Your task to perform on an android device: see tabs open on other devices in the chrome app Image 0: 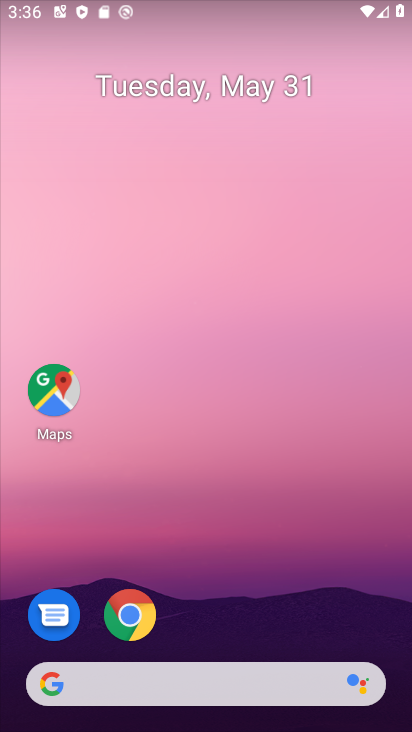
Step 0: drag from (267, 673) to (143, 8)
Your task to perform on an android device: see tabs open on other devices in the chrome app Image 1: 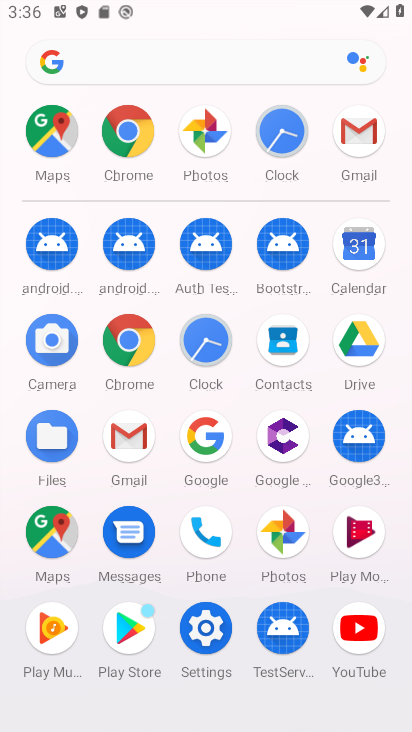
Step 1: click (124, 129)
Your task to perform on an android device: see tabs open on other devices in the chrome app Image 2: 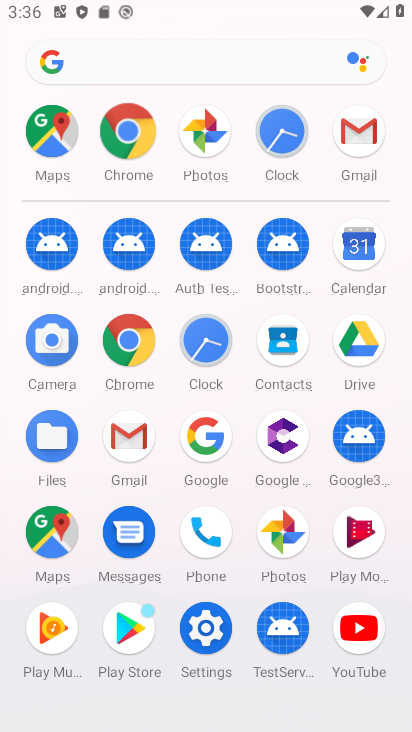
Step 2: click (124, 129)
Your task to perform on an android device: see tabs open on other devices in the chrome app Image 3: 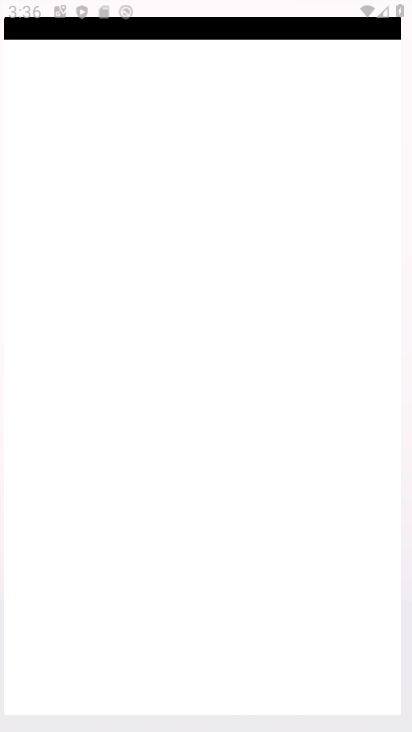
Step 3: click (124, 129)
Your task to perform on an android device: see tabs open on other devices in the chrome app Image 4: 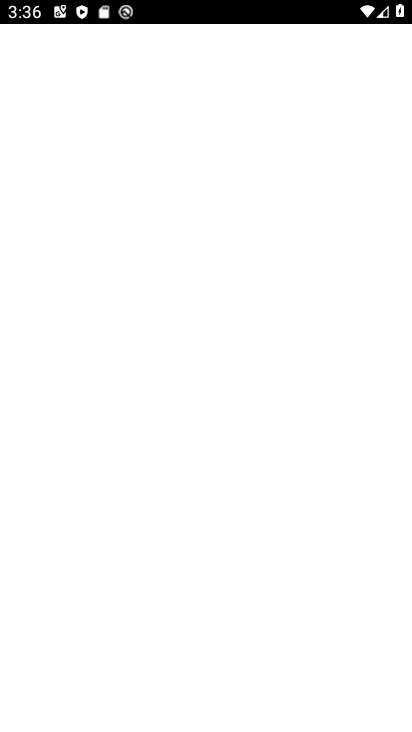
Step 4: click (124, 129)
Your task to perform on an android device: see tabs open on other devices in the chrome app Image 5: 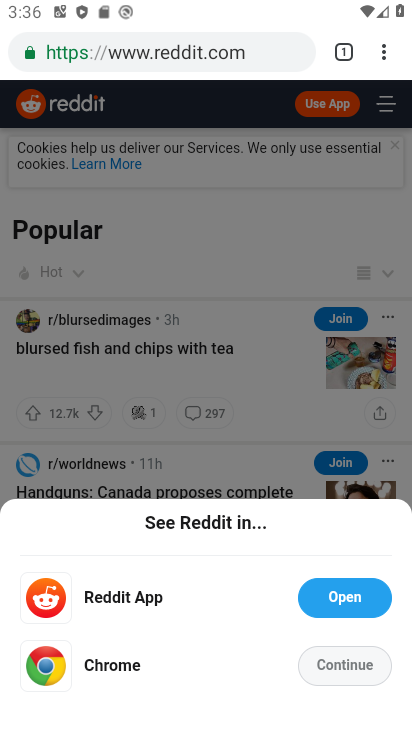
Step 5: drag from (385, 55) to (197, 243)
Your task to perform on an android device: see tabs open on other devices in the chrome app Image 6: 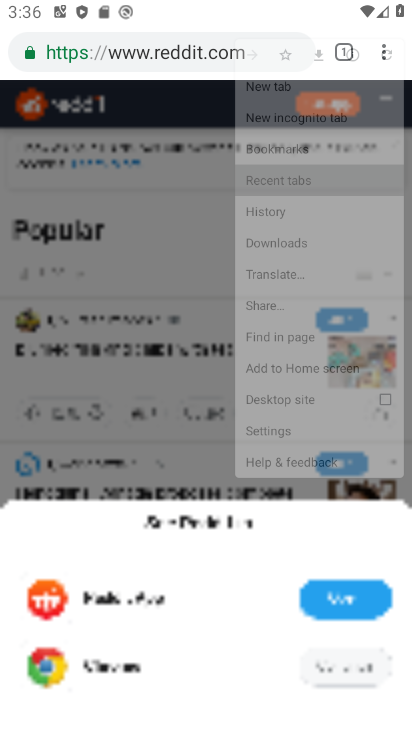
Step 6: click (196, 242)
Your task to perform on an android device: see tabs open on other devices in the chrome app Image 7: 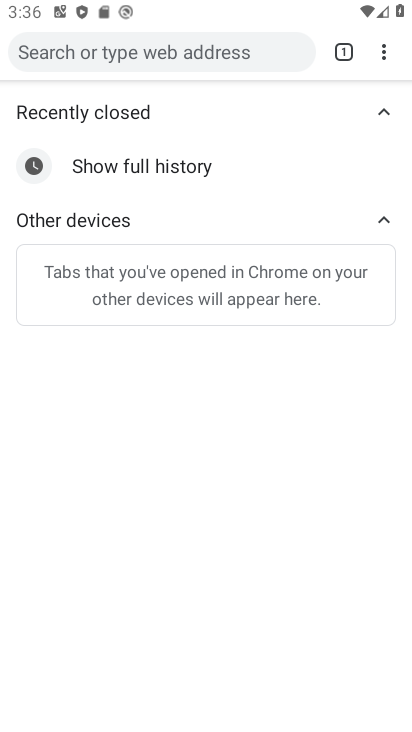
Step 7: click (196, 242)
Your task to perform on an android device: see tabs open on other devices in the chrome app Image 8: 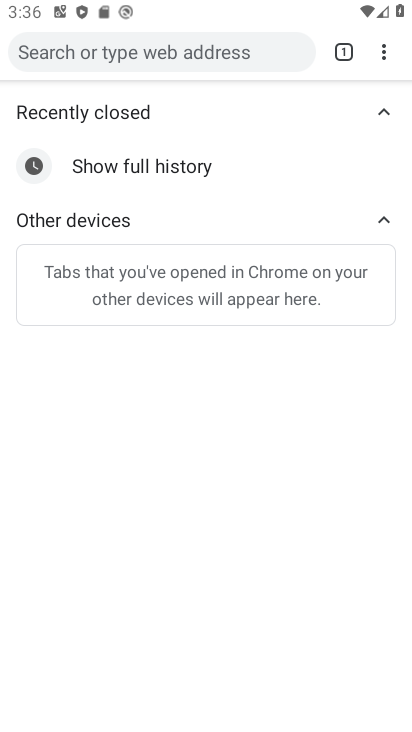
Step 8: task complete